Your task to perform on an android device: Open wifi settings Image 0: 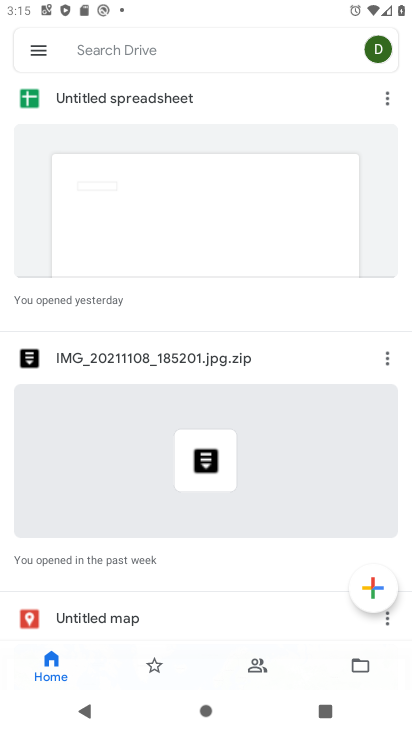
Step 0: press home button
Your task to perform on an android device: Open wifi settings Image 1: 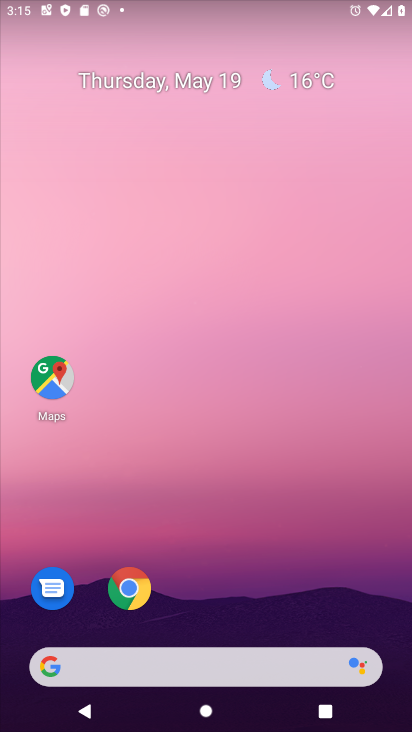
Step 1: drag from (268, 573) to (271, 112)
Your task to perform on an android device: Open wifi settings Image 2: 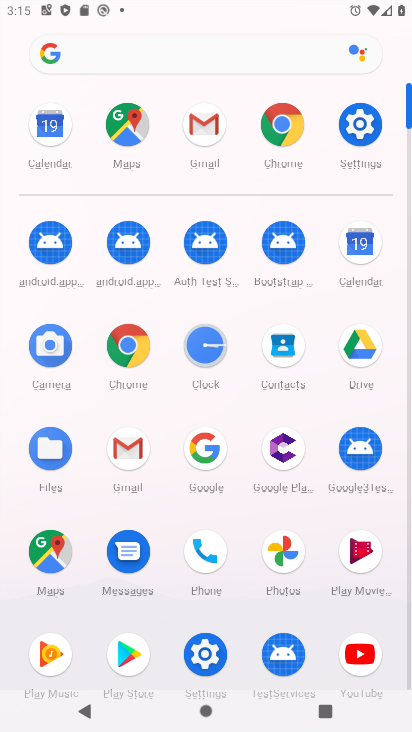
Step 2: click (359, 120)
Your task to perform on an android device: Open wifi settings Image 3: 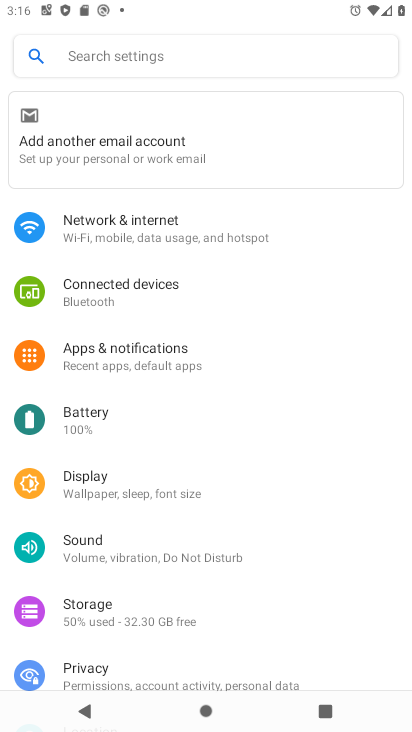
Step 3: click (143, 233)
Your task to perform on an android device: Open wifi settings Image 4: 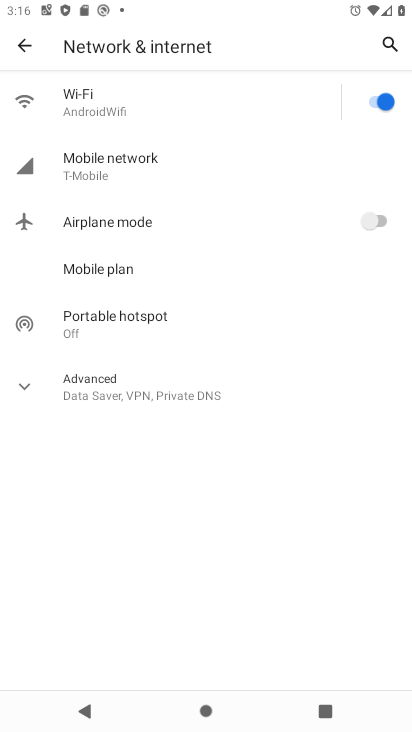
Step 4: click (177, 89)
Your task to perform on an android device: Open wifi settings Image 5: 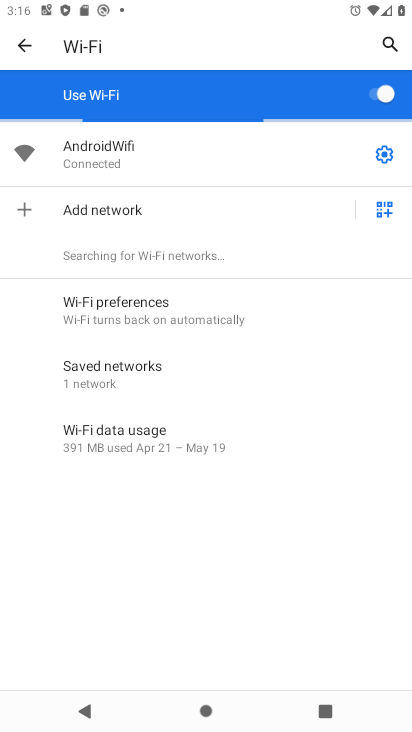
Step 5: click (386, 158)
Your task to perform on an android device: Open wifi settings Image 6: 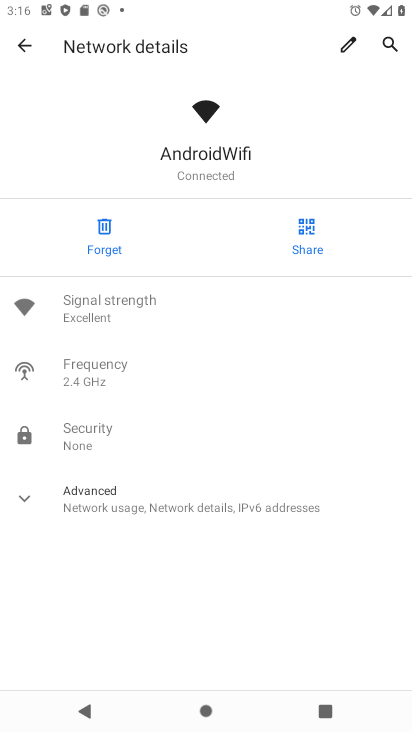
Step 6: task complete